Your task to perform on an android device: Go to battery settings Image 0: 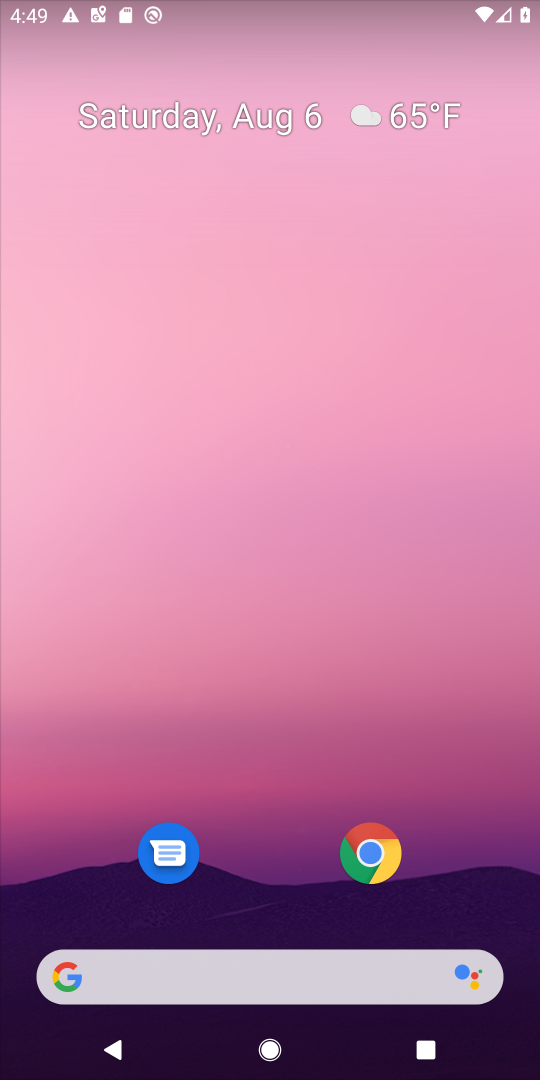
Step 0: drag from (284, 913) to (384, 27)
Your task to perform on an android device: Go to battery settings Image 1: 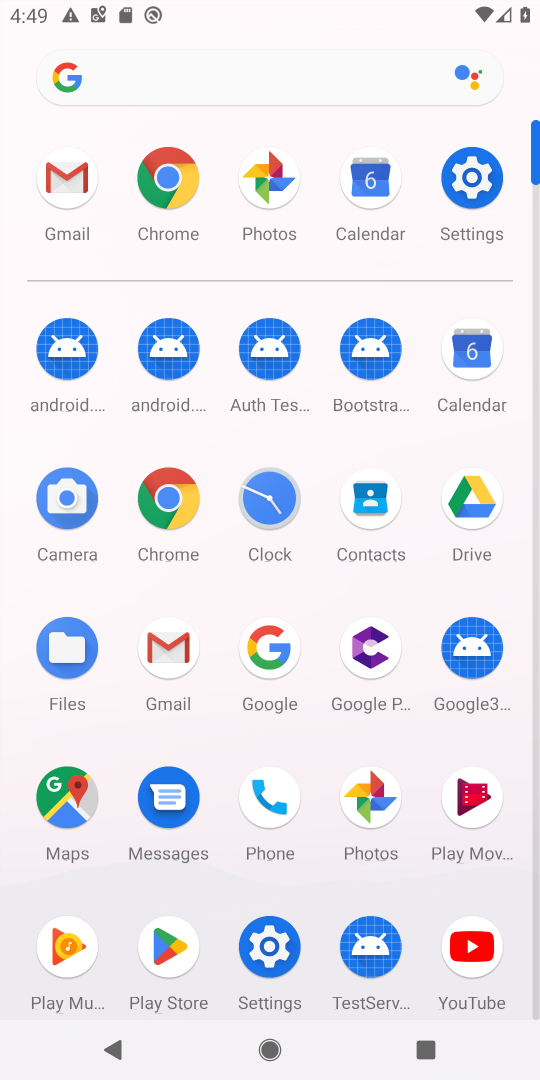
Step 1: click (480, 198)
Your task to perform on an android device: Go to battery settings Image 2: 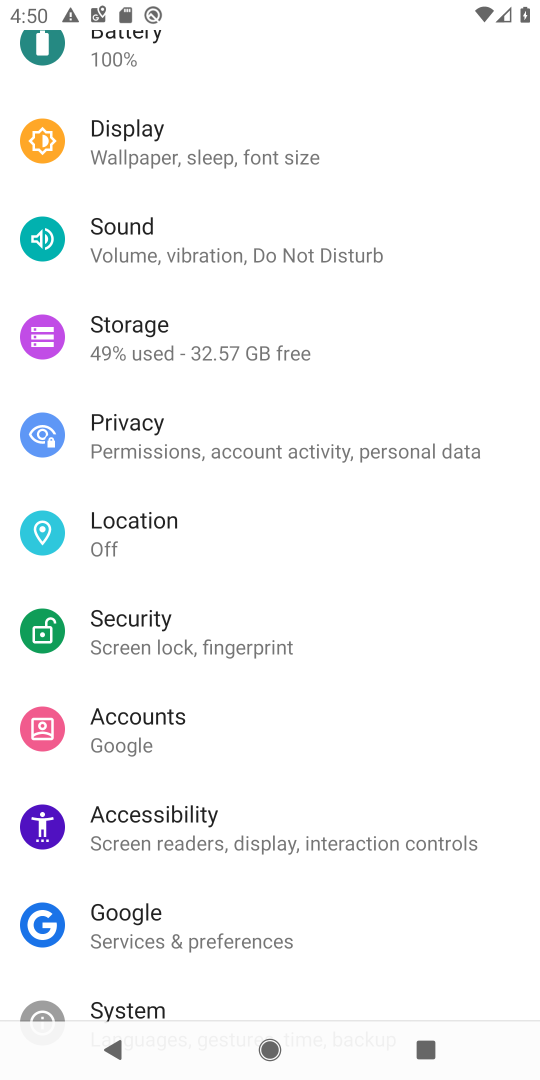
Step 2: drag from (280, 209) to (288, 774)
Your task to perform on an android device: Go to battery settings Image 3: 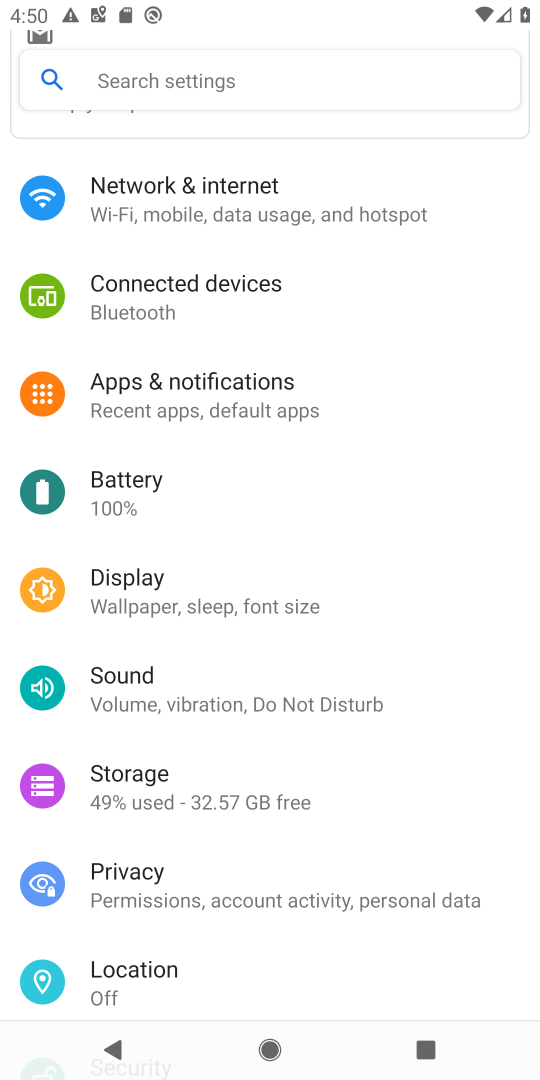
Step 3: click (173, 507)
Your task to perform on an android device: Go to battery settings Image 4: 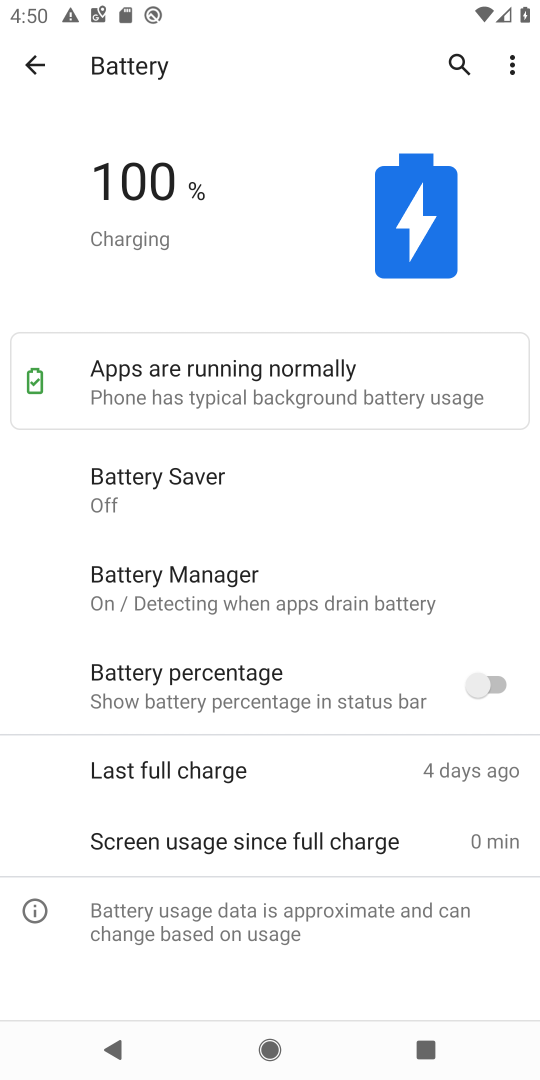
Step 4: task complete